Your task to perform on an android device: Open ESPN.com Image 0: 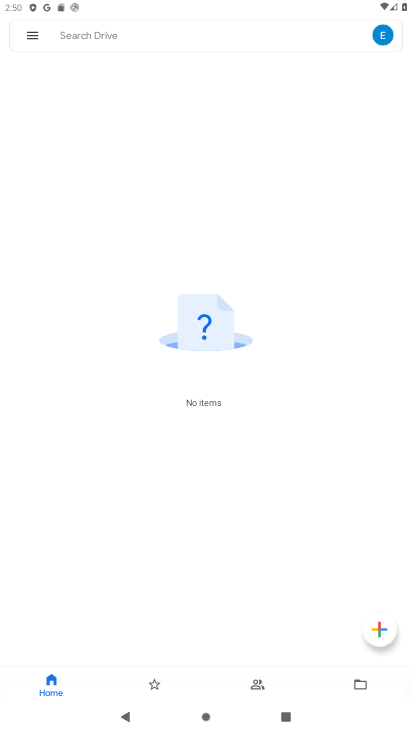
Step 0: press home button
Your task to perform on an android device: Open ESPN.com Image 1: 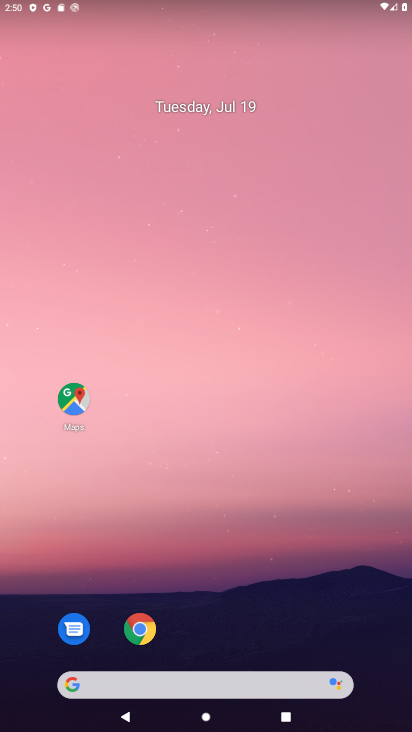
Step 1: click (150, 633)
Your task to perform on an android device: Open ESPN.com Image 2: 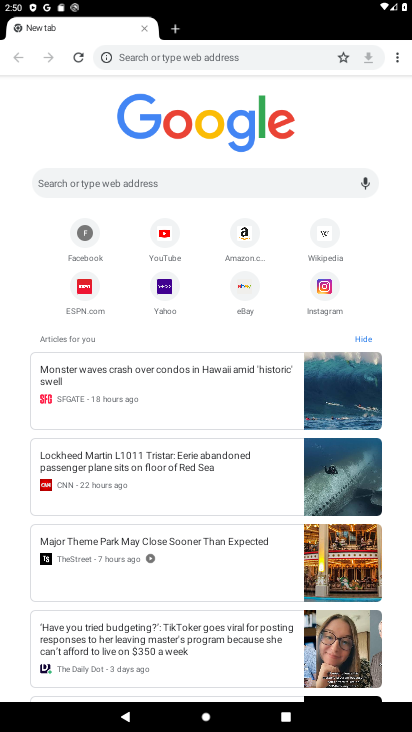
Step 2: click (86, 292)
Your task to perform on an android device: Open ESPN.com Image 3: 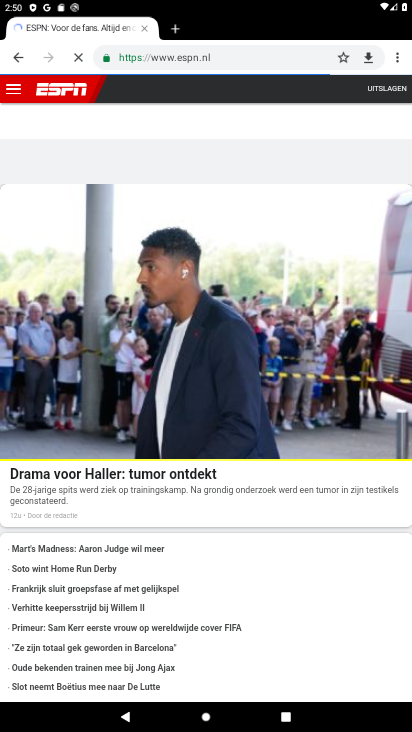
Step 3: task complete